Your task to perform on an android device: manage bookmarks in the chrome app Image 0: 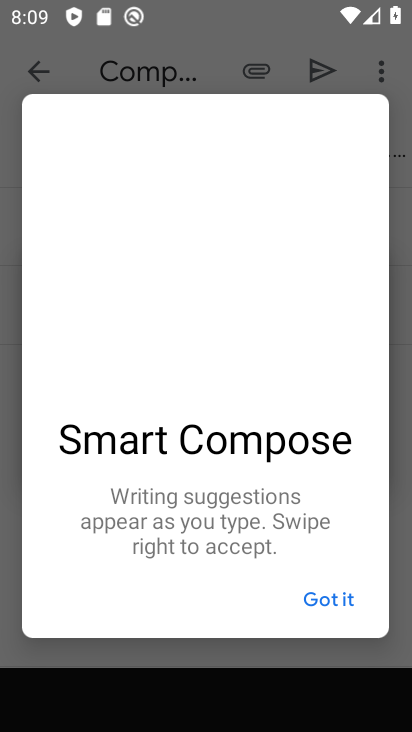
Step 0: press home button
Your task to perform on an android device: manage bookmarks in the chrome app Image 1: 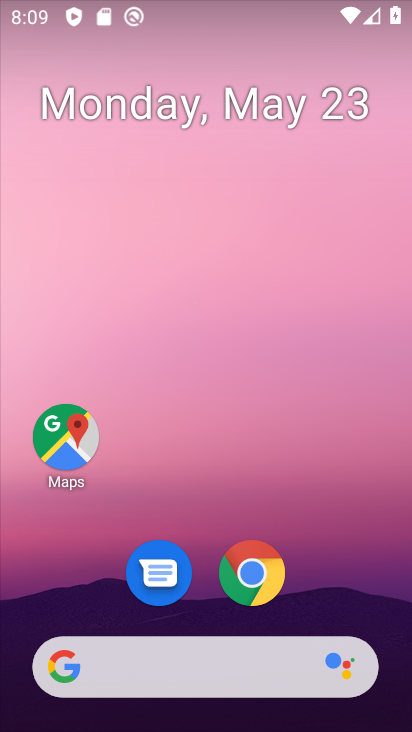
Step 1: click (252, 563)
Your task to perform on an android device: manage bookmarks in the chrome app Image 2: 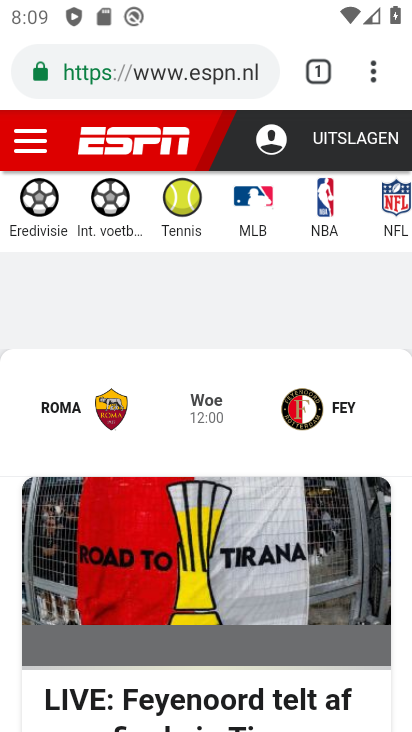
Step 2: click (379, 63)
Your task to perform on an android device: manage bookmarks in the chrome app Image 3: 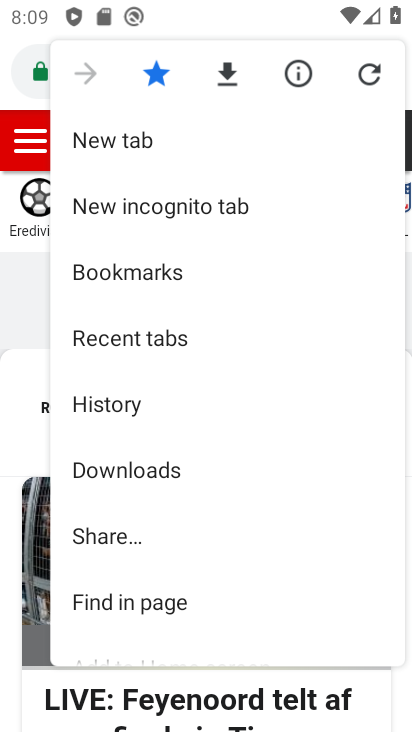
Step 3: click (183, 266)
Your task to perform on an android device: manage bookmarks in the chrome app Image 4: 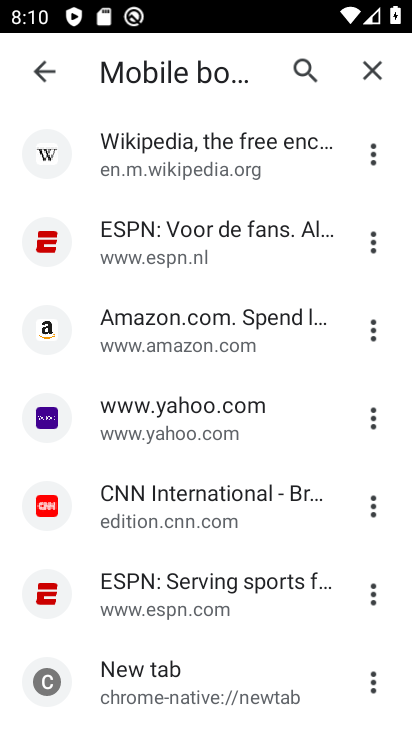
Step 4: click (370, 238)
Your task to perform on an android device: manage bookmarks in the chrome app Image 5: 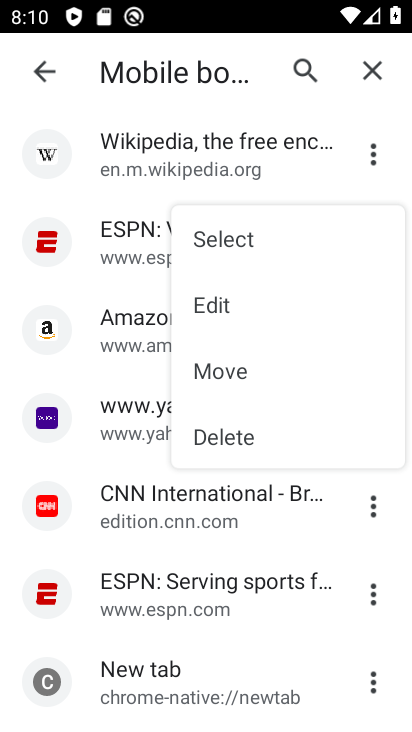
Step 5: click (253, 435)
Your task to perform on an android device: manage bookmarks in the chrome app Image 6: 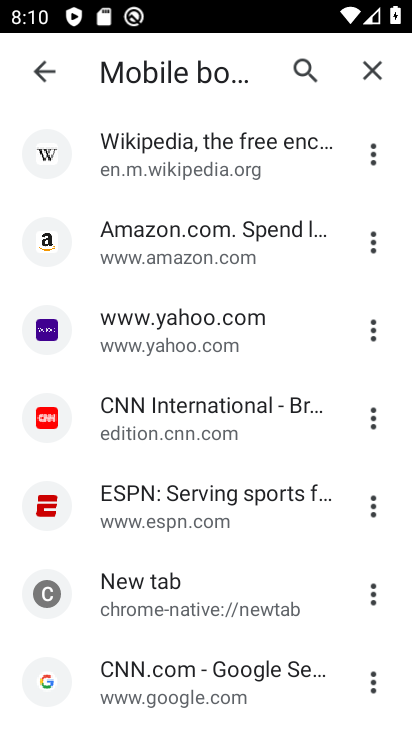
Step 6: task complete